Your task to perform on an android device: toggle sleep mode Image 0: 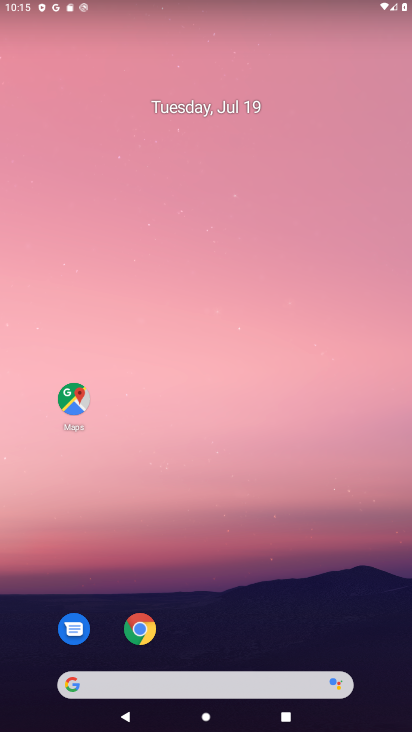
Step 0: drag from (248, 599) to (316, 125)
Your task to perform on an android device: toggle sleep mode Image 1: 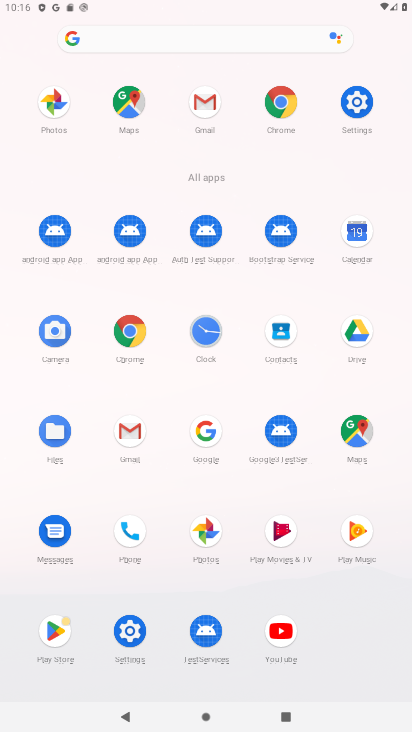
Step 1: click (129, 625)
Your task to perform on an android device: toggle sleep mode Image 2: 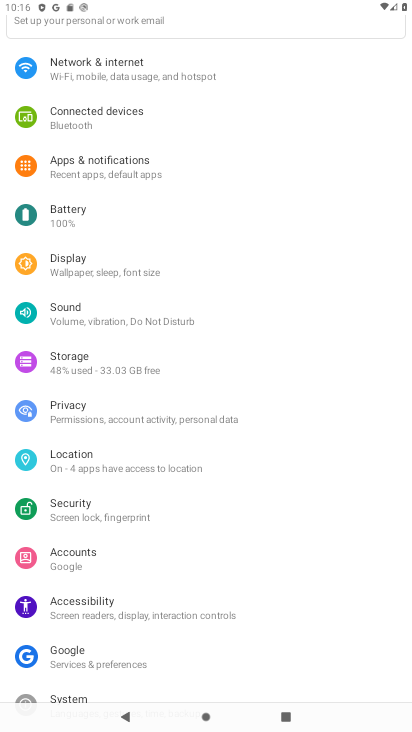
Step 2: click (123, 271)
Your task to perform on an android device: toggle sleep mode Image 3: 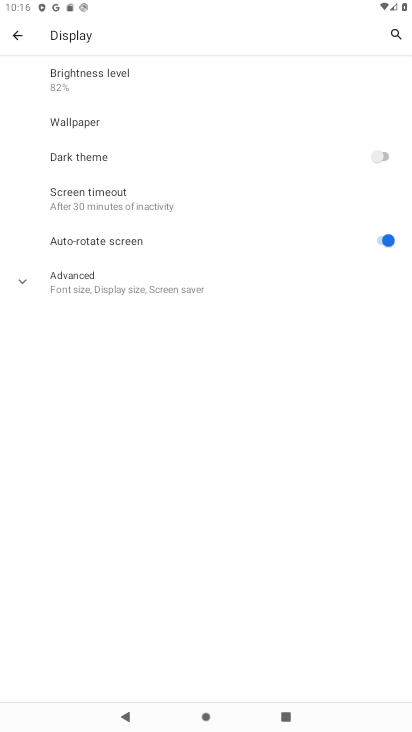
Step 3: click (143, 302)
Your task to perform on an android device: toggle sleep mode Image 4: 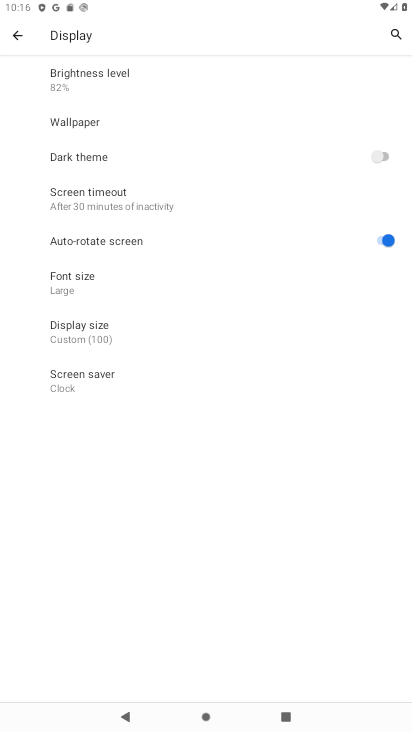
Step 4: task complete